Your task to perform on an android device: toggle notification dots Image 0: 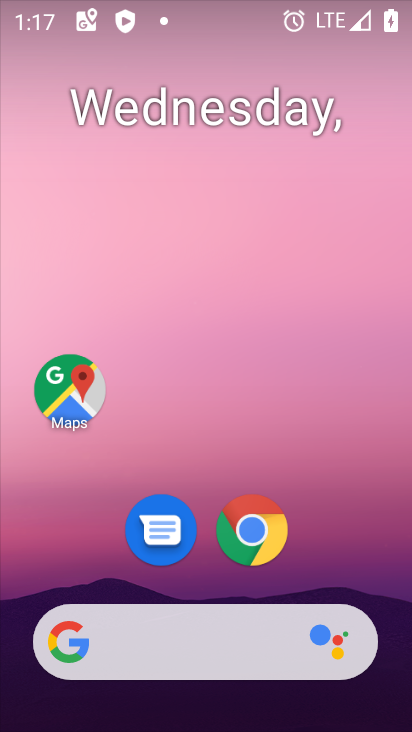
Step 0: drag from (365, 561) to (348, 189)
Your task to perform on an android device: toggle notification dots Image 1: 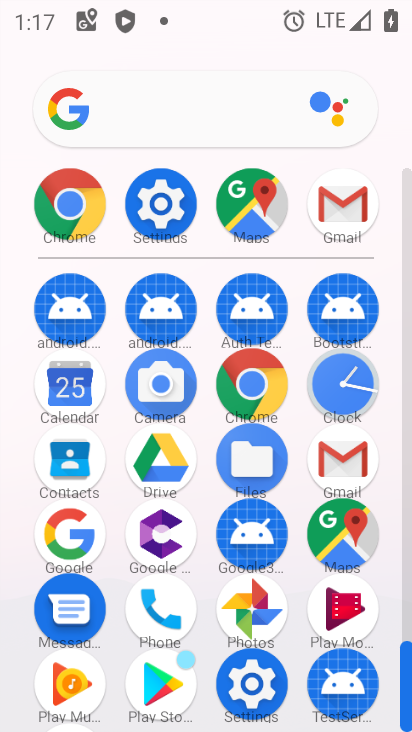
Step 1: click (168, 216)
Your task to perform on an android device: toggle notification dots Image 2: 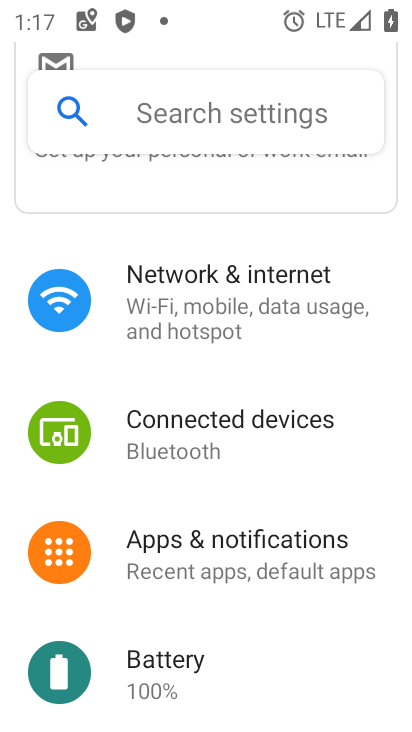
Step 2: click (221, 542)
Your task to perform on an android device: toggle notification dots Image 3: 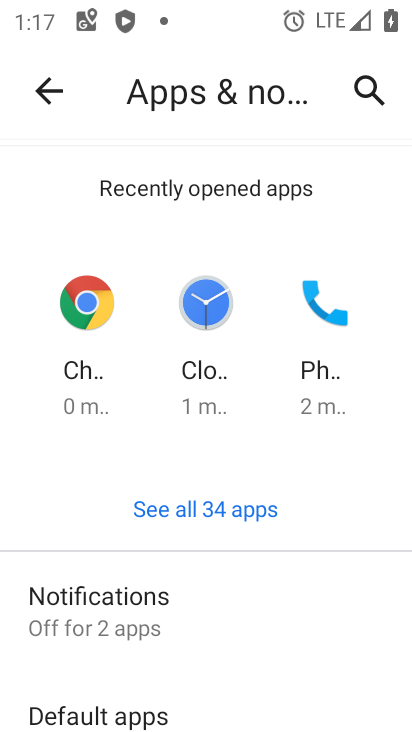
Step 3: click (129, 601)
Your task to perform on an android device: toggle notification dots Image 4: 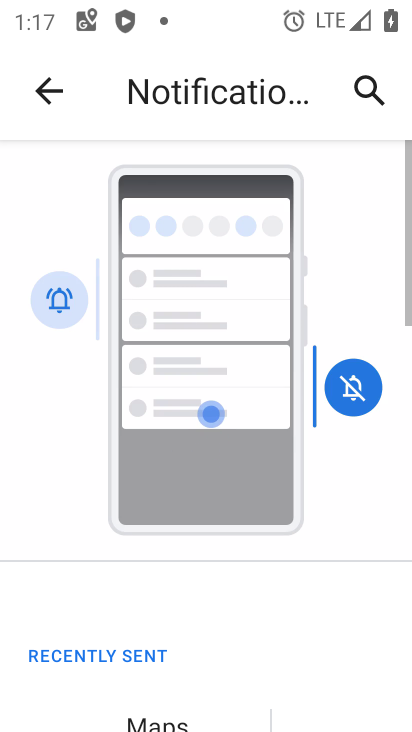
Step 4: drag from (276, 618) to (344, 220)
Your task to perform on an android device: toggle notification dots Image 5: 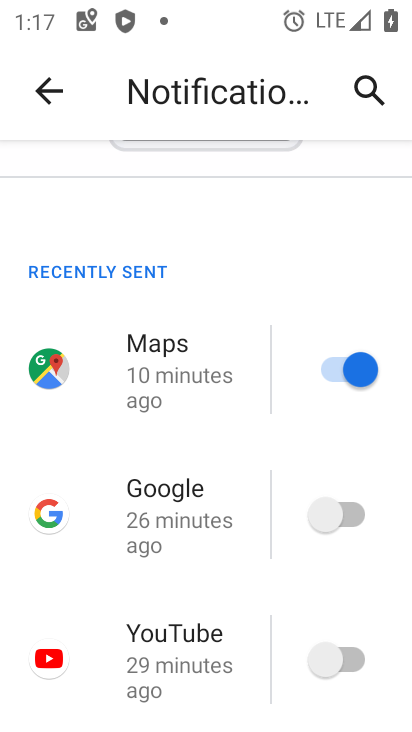
Step 5: drag from (266, 606) to (298, 242)
Your task to perform on an android device: toggle notification dots Image 6: 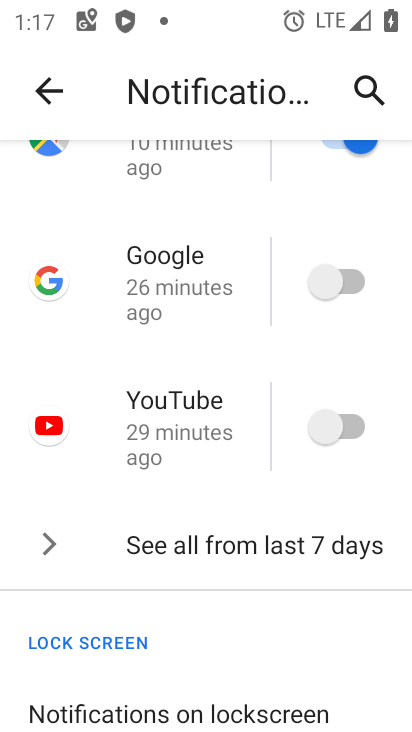
Step 6: drag from (275, 644) to (272, 219)
Your task to perform on an android device: toggle notification dots Image 7: 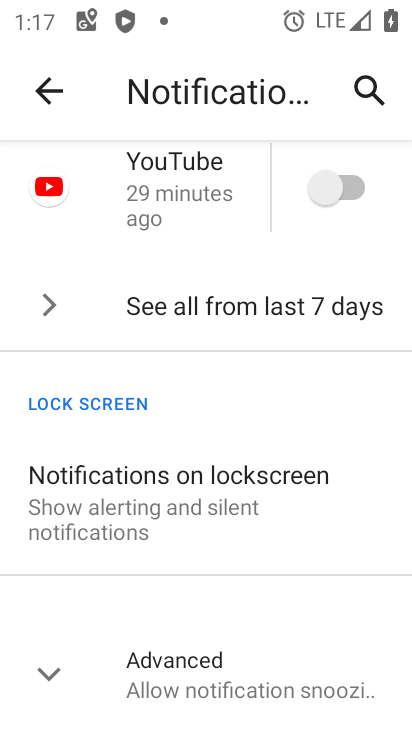
Step 7: click (258, 691)
Your task to perform on an android device: toggle notification dots Image 8: 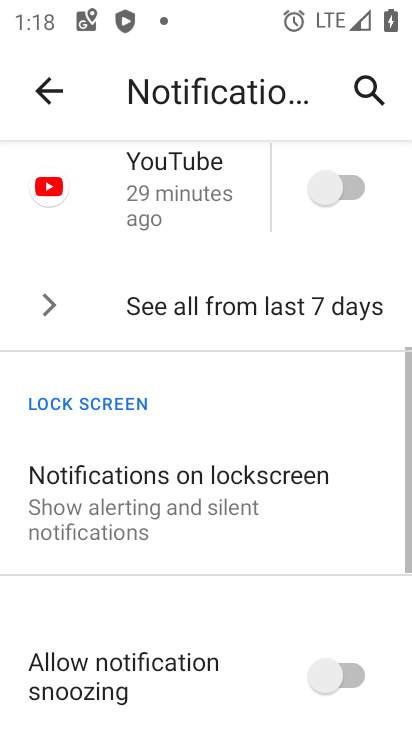
Step 8: drag from (270, 668) to (270, 277)
Your task to perform on an android device: toggle notification dots Image 9: 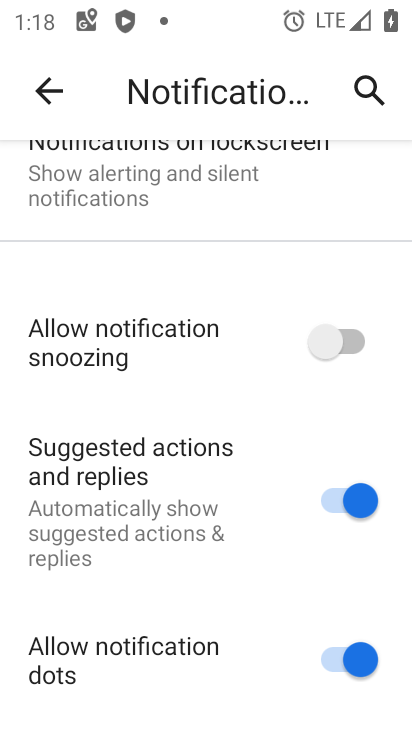
Step 9: click (326, 651)
Your task to perform on an android device: toggle notification dots Image 10: 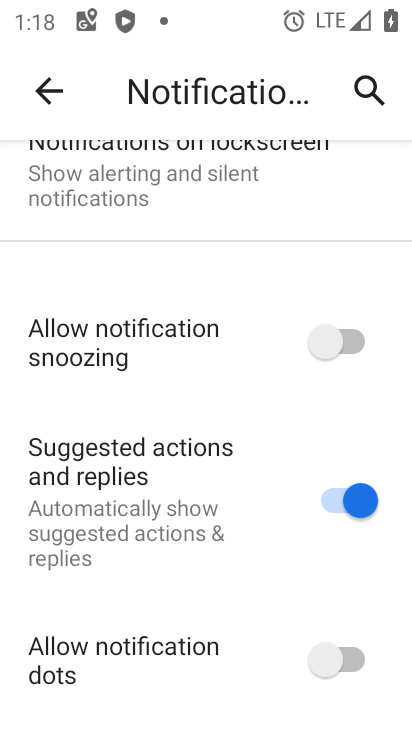
Step 10: task complete